Your task to perform on an android device: open app "VLC for Android" Image 0: 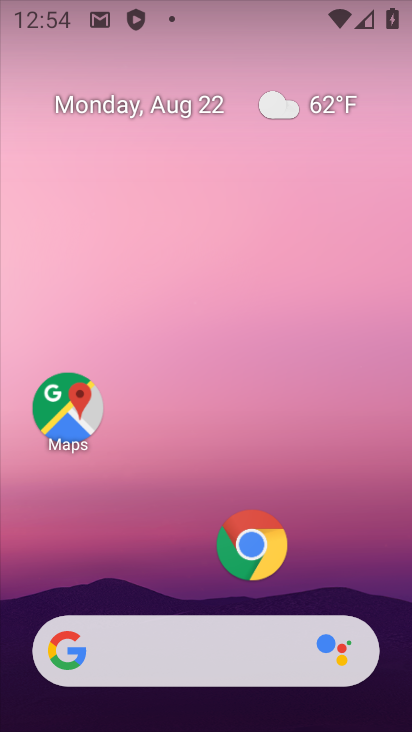
Step 0: drag from (170, 453) to (237, 77)
Your task to perform on an android device: open app "VLC for Android" Image 1: 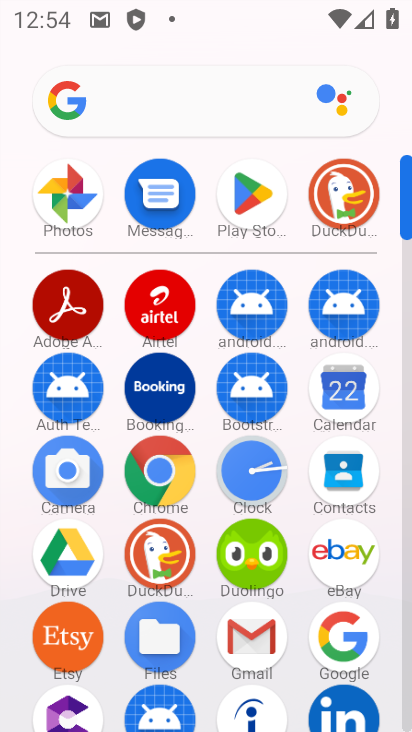
Step 1: click (259, 195)
Your task to perform on an android device: open app "VLC for Android" Image 2: 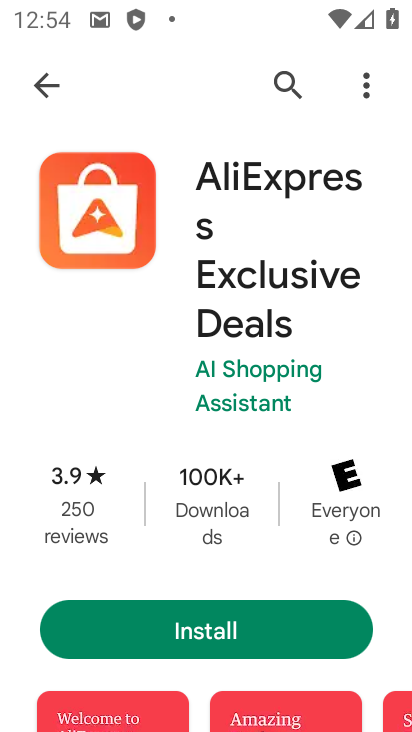
Step 2: click (285, 71)
Your task to perform on an android device: open app "VLC for Android" Image 3: 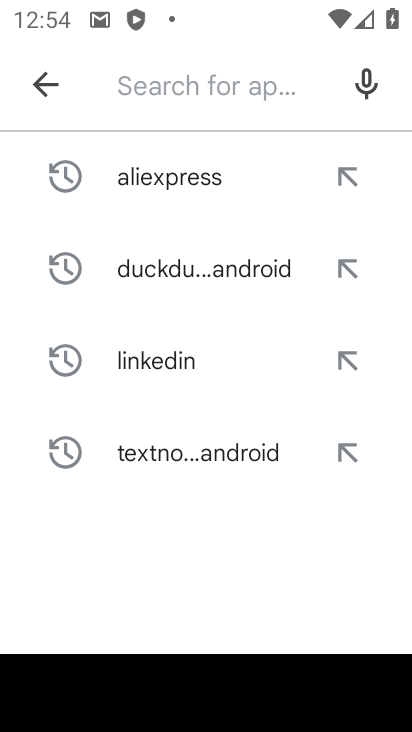
Step 3: click (132, 87)
Your task to perform on an android device: open app "VLC for Android" Image 4: 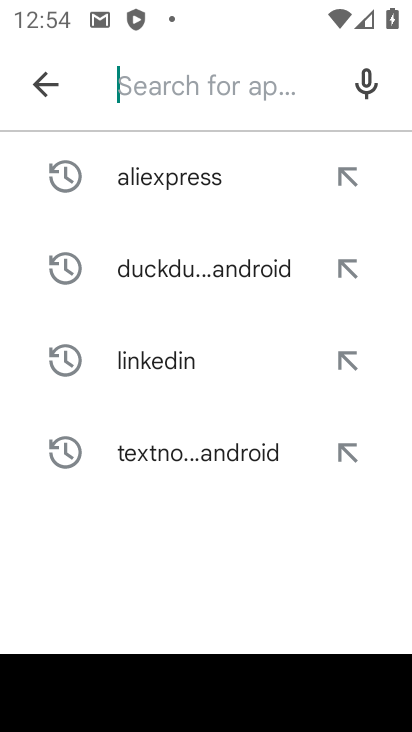
Step 4: type "VLC for Android"
Your task to perform on an android device: open app "VLC for Android" Image 5: 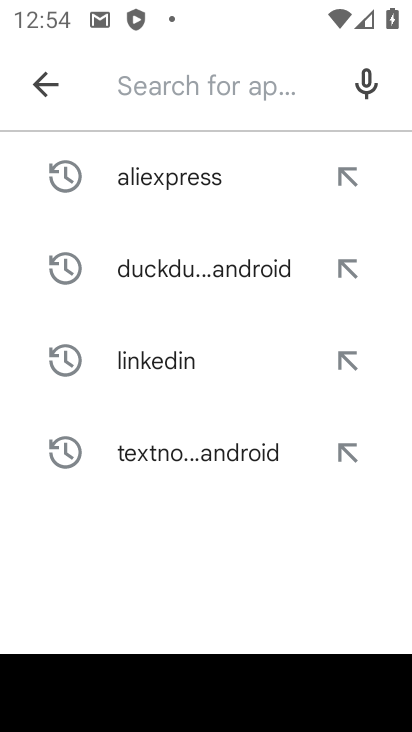
Step 5: click (263, 581)
Your task to perform on an android device: open app "VLC for Android" Image 6: 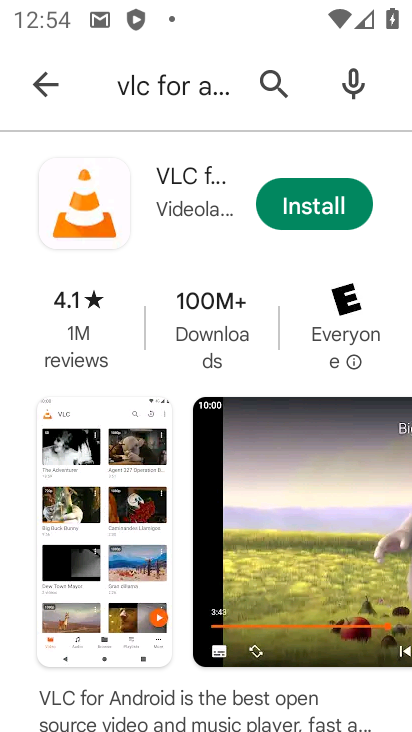
Step 6: task complete